Your task to perform on an android device: Open calendar and show me the fourth week of next month Image 0: 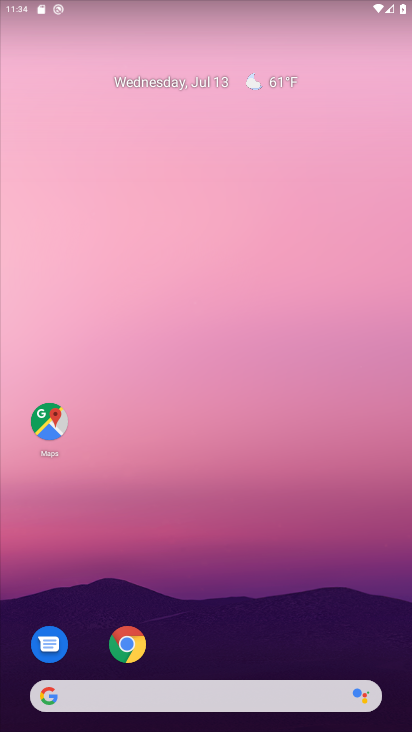
Step 0: drag from (323, 556) to (405, 60)
Your task to perform on an android device: Open calendar and show me the fourth week of next month Image 1: 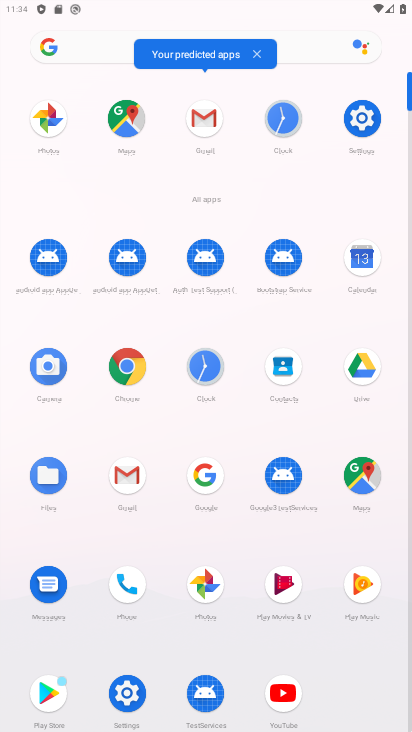
Step 1: click (357, 259)
Your task to perform on an android device: Open calendar and show me the fourth week of next month Image 2: 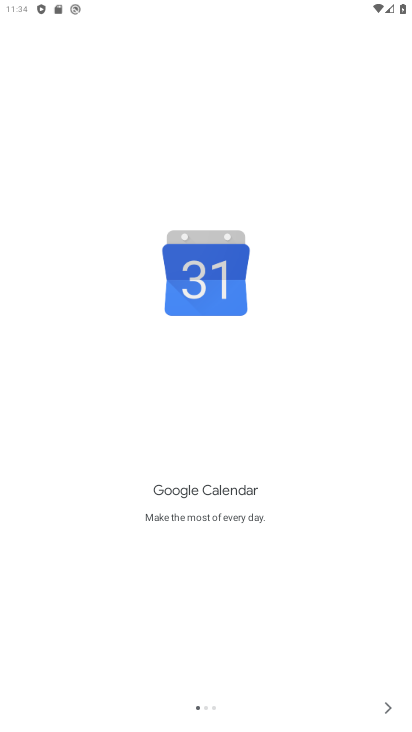
Step 2: click (383, 705)
Your task to perform on an android device: Open calendar and show me the fourth week of next month Image 3: 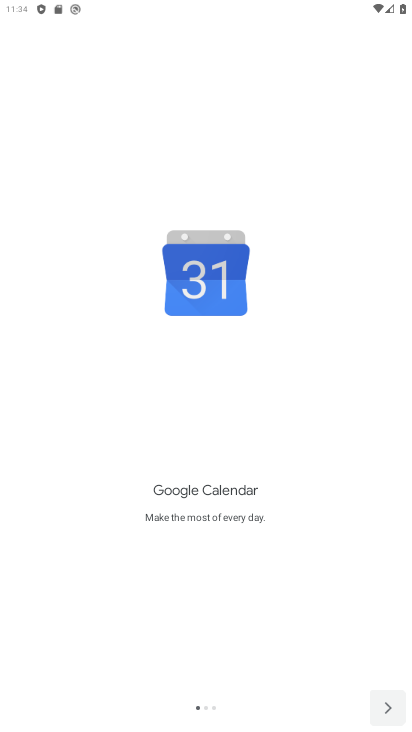
Step 3: click (382, 702)
Your task to perform on an android device: Open calendar and show me the fourth week of next month Image 4: 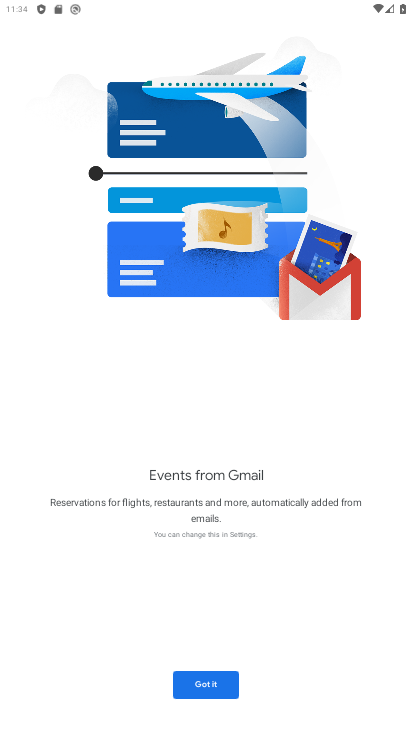
Step 4: click (189, 682)
Your task to perform on an android device: Open calendar and show me the fourth week of next month Image 5: 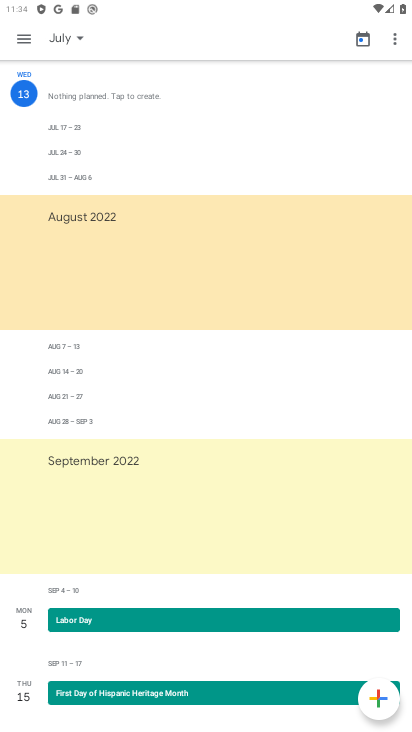
Step 5: click (29, 34)
Your task to perform on an android device: Open calendar and show me the fourth week of next month Image 6: 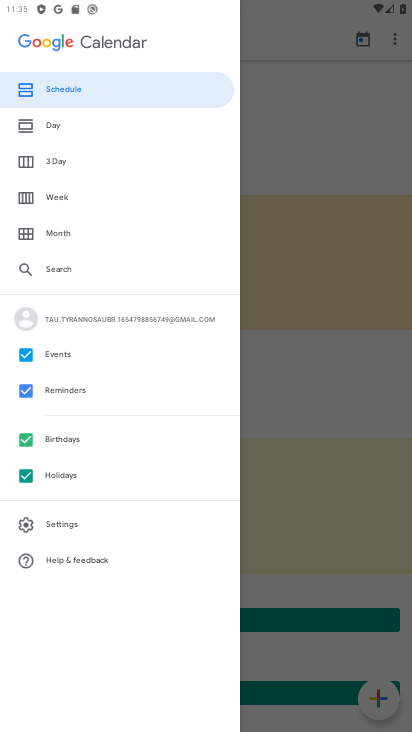
Step 6: click (70, 198)
Your task to perform on an android device: Open calendar and show me the fourth week of next month Image 7: 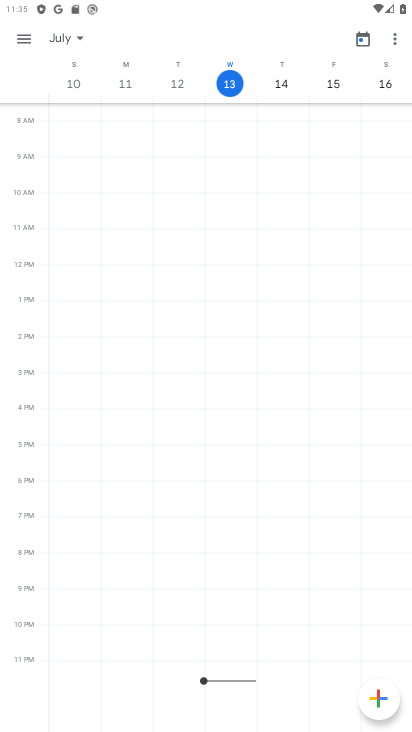
Step 7: click (82, 44)
Your task to perform on an android device: Open calendar and show me the fourth week of next month Image 8: 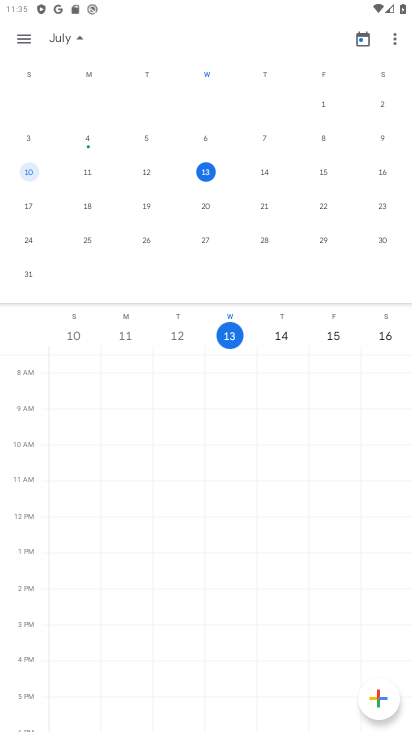
Step 8: drag from (336, 223) to (0, 212)
Your task to perform on an android device: Open calendar and show me the fourth week of next month Image 9: 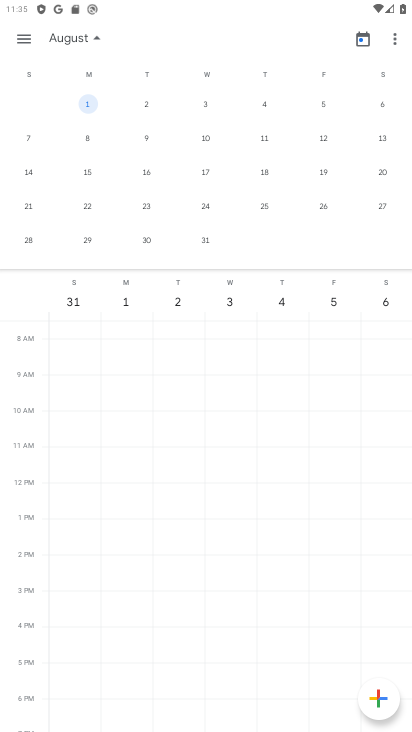
Step 9: click (82, 204)
Your task to perform on an android device: Open calendar and show me the fourth week of next month Image 10: 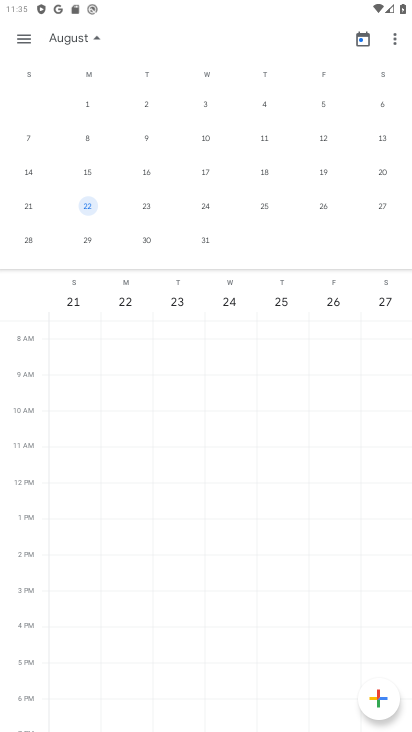
Step 10: click (93, 205)
Your task to perform on an android device: Open calendar and show me the fourth week of next month Image 11: 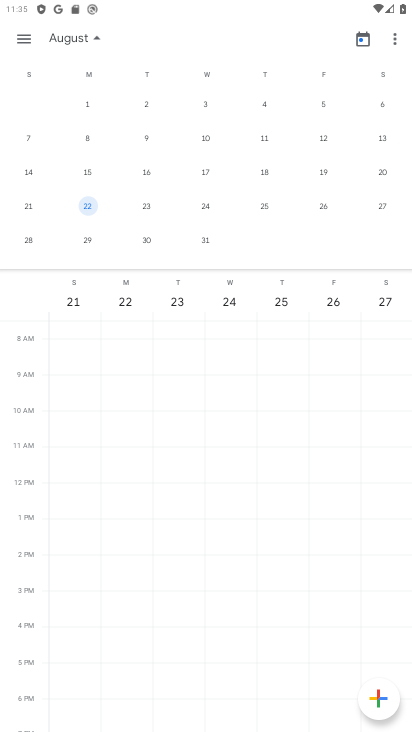
Step 11: task complete